Your task to perform on an android device: Open calendar and show me the second week of next month Image 0: 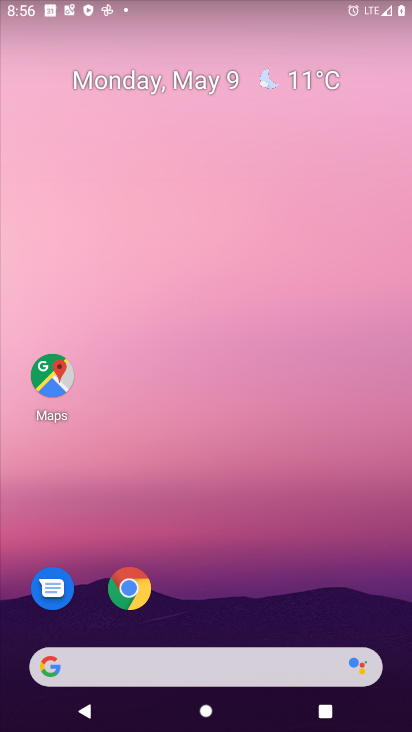
Step 0: drag from (278, 617) to (292, 9)
Your task to perform on an android device: Open calendar and show me the second week of next month Image 1: 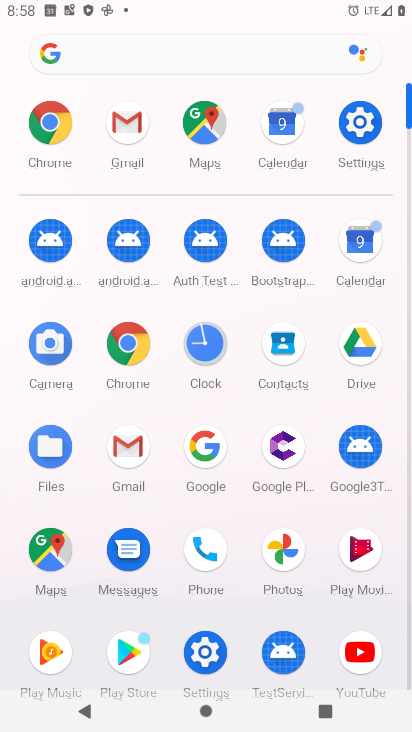
Step 1: click (353, 262)
Your task to perform on an android device: Open calendar and show me the second week of next month Image 2: 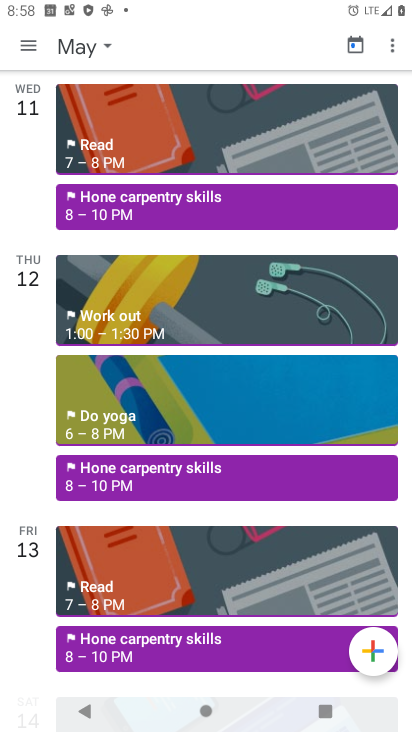
Step 2: click (74, 37)
Your task to perform on an android device: Open calendar and show me the second week of next month Image 3: 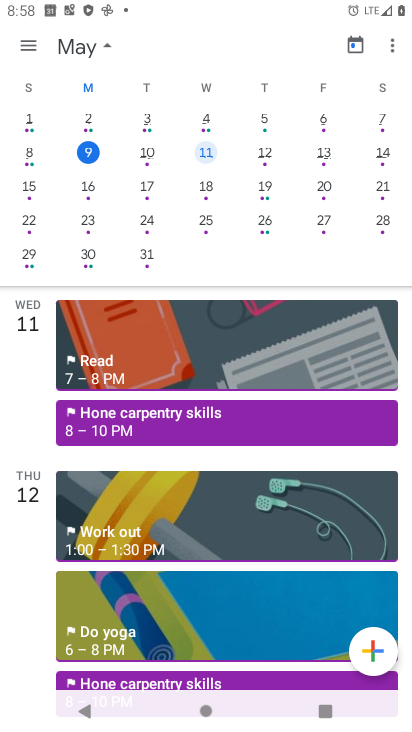
Step 3: drag from (403, 182) to (65, 194)
Your task to perform on an android device: Open calendar and show me the second week of next month Image 4: 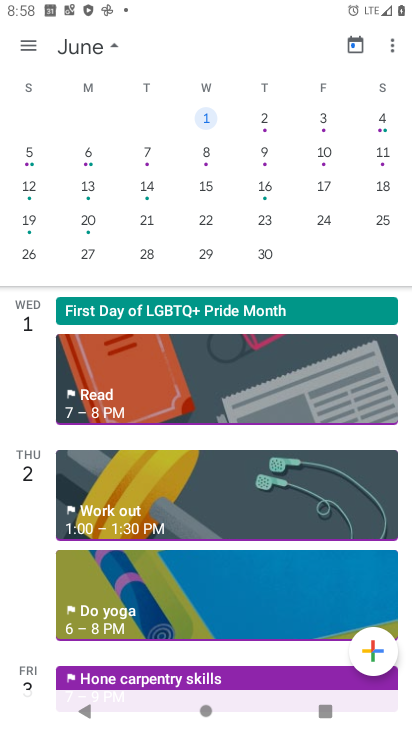
Step 4: click (138, 184)
Your task to perform on an android device: Open calendar and show me the second week of next month Image 5: 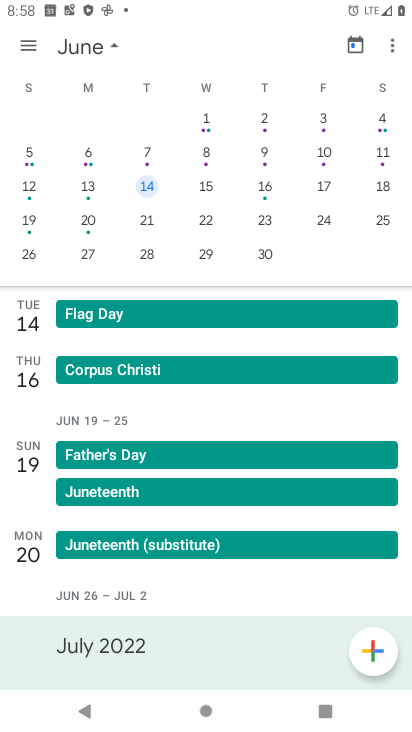
Step 5: task complete